Your task to perform on an android device: change timer sound Image 0: 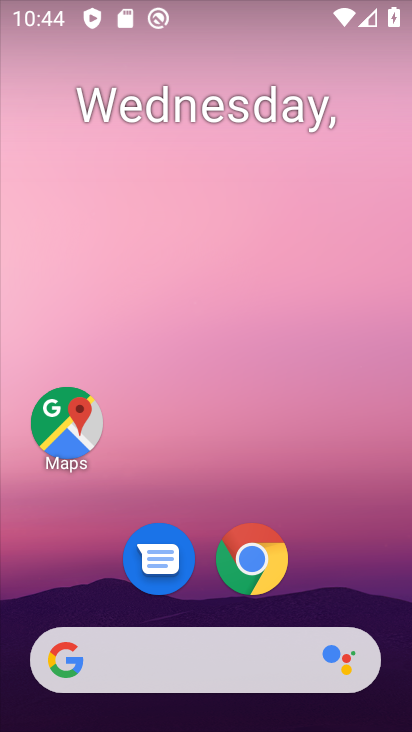
Step 0: drag from (336, 528) to (313, 19)
Your task to perform on an android device: change timer sound Image 1: 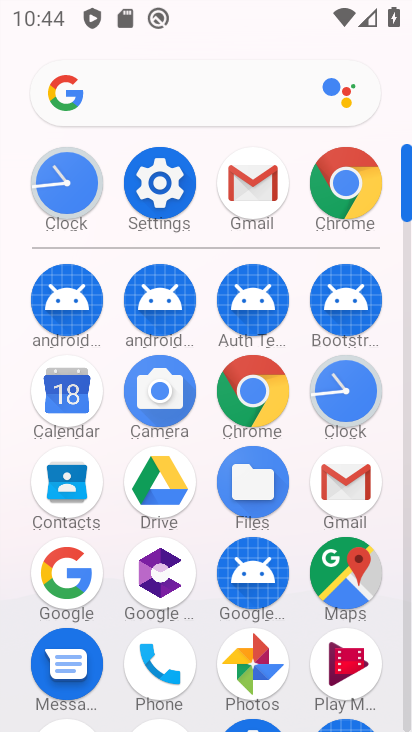
Step 1: click (25, 166)
Your task to perform on an android device: change timer sound Image 2: 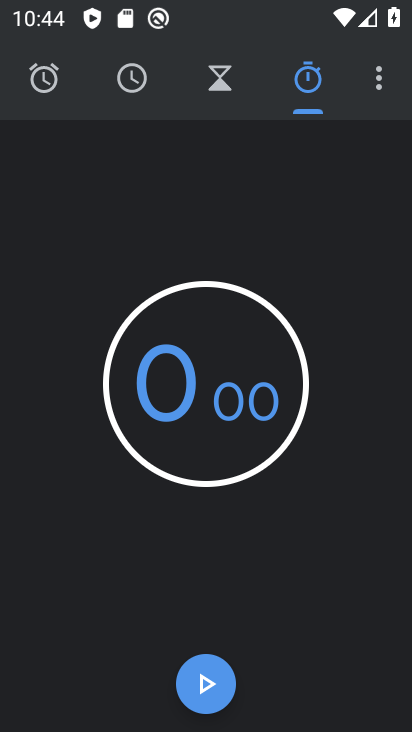
Step 2: click (384, 88)
Your task to perform on an android device: change timer sound Image 3: 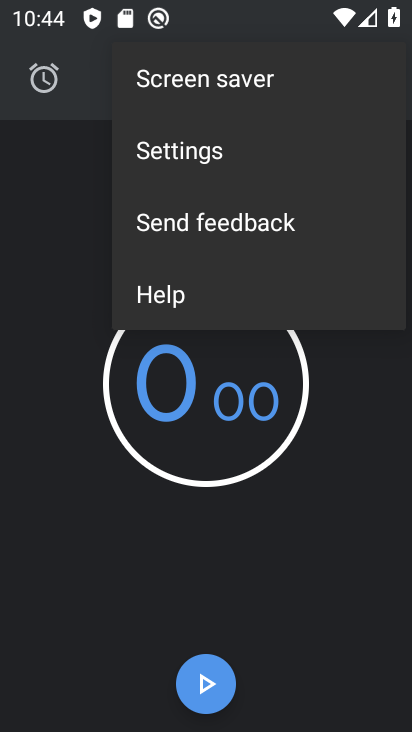
Step 3: click (176, 163)
Your task to perform on an android device: change timer sound Image 4: 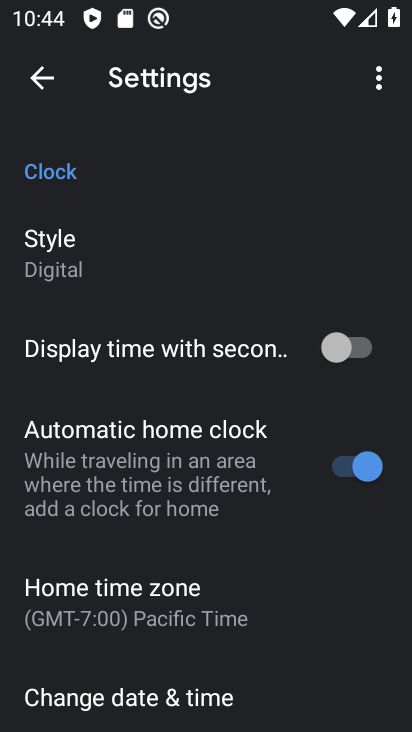
Step 4: drag from (139, 576) to (129, 237)
Your task to perform on an android device: change timer sound Image 5: 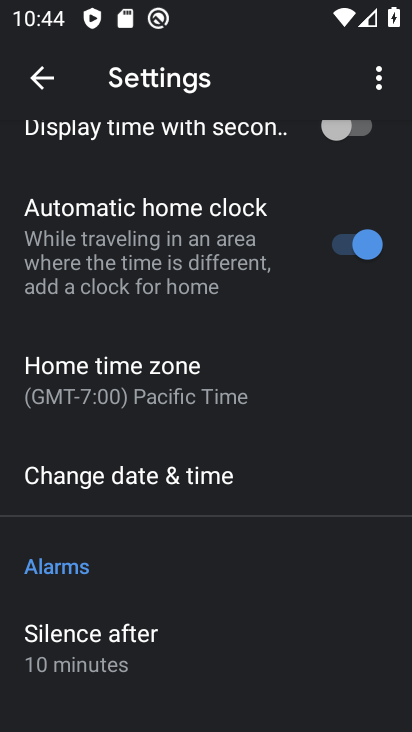
Step 5: drag from (201, 632) to (205, 230)
Your task to perform on an android device: change timer sound Image 6: 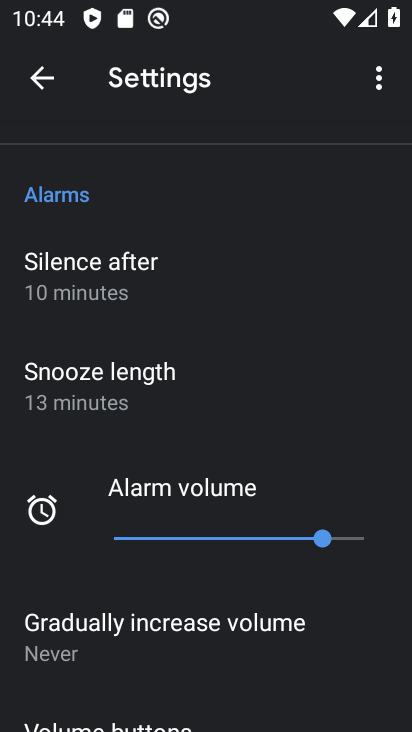
Step 6: click (116, 372)
Your task to perform on an android device: change timer sound Image 7: 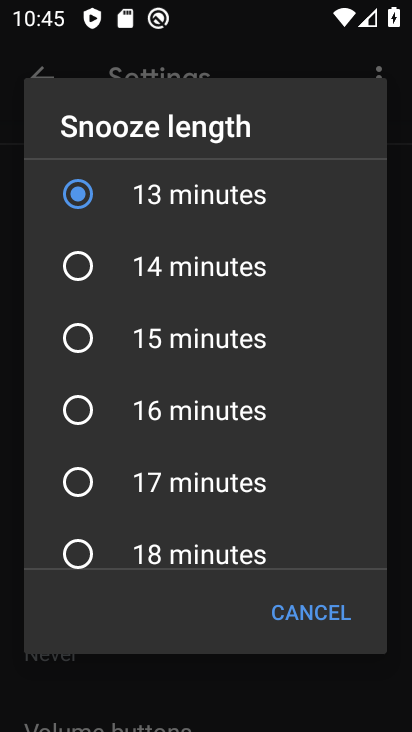
Step 7: click (75, 421)
Your task to perform on an android device: change timer sound Image 8: 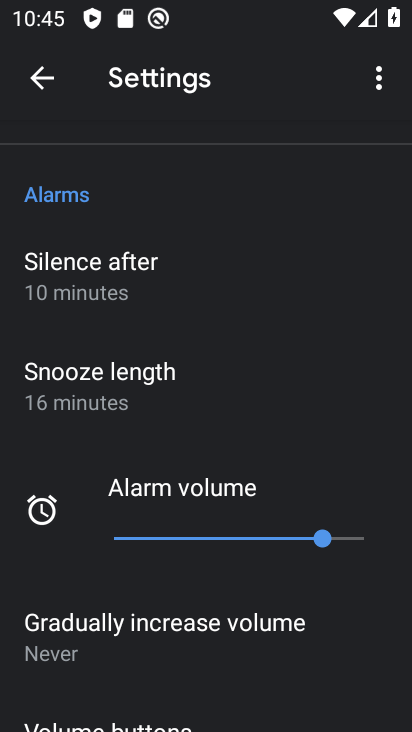
Step 8: task complete